Your task to perform on an android device: Search for pizza restaurants on Maps Image 0: 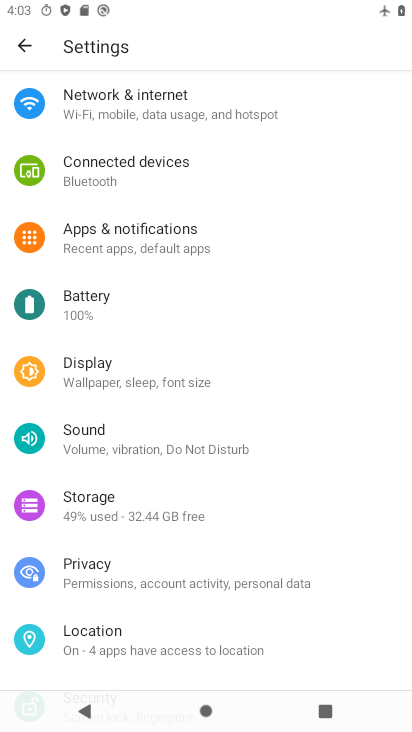
Step 0: press home button
Your task to perform on an android device: Search for pizza restaurants on Maps Image 1: 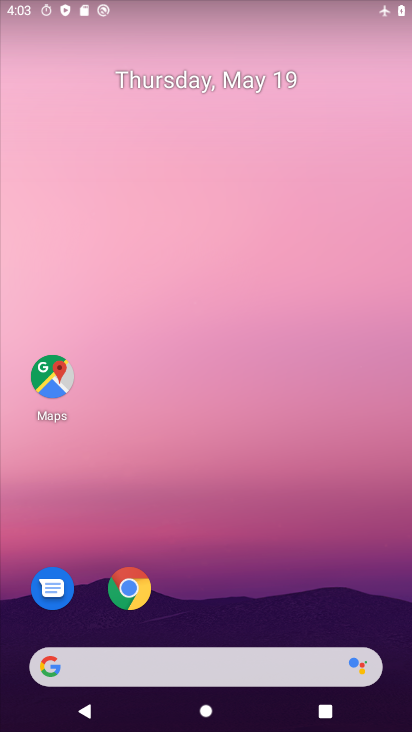
Step 1: click (55, 375)
Your task to perform on an android device: Search for pizza restaurants on Maps Image 2: 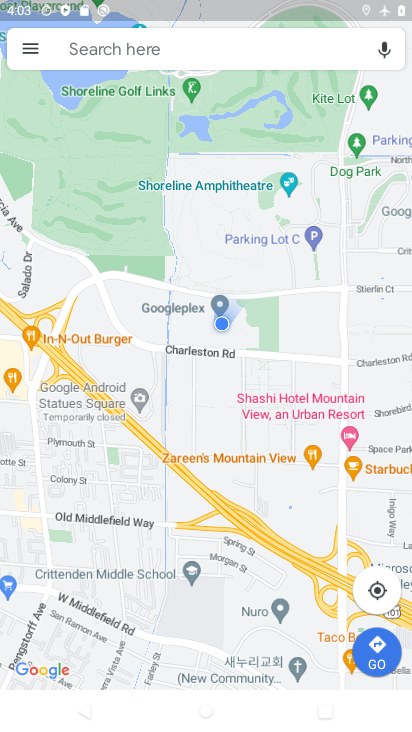
Step 2: click (195, 49)
Your task to perform on an android device: Search for pizza restaurants on Maps Image 3: 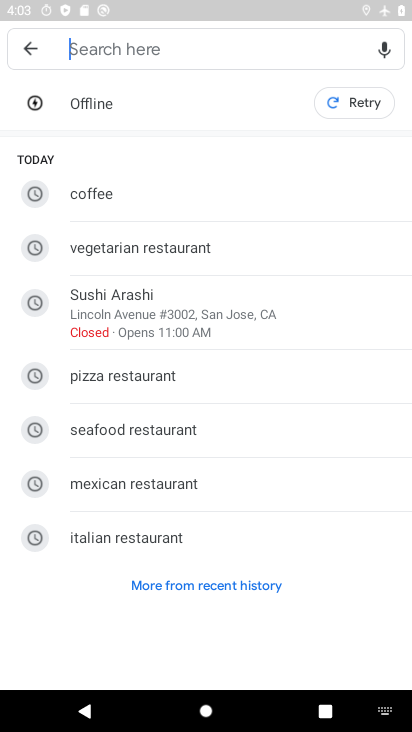
Step 3: type "Pizza restaurants"
Your task to perform on an android device: Search for pizza restaurants on Maps Image 4: 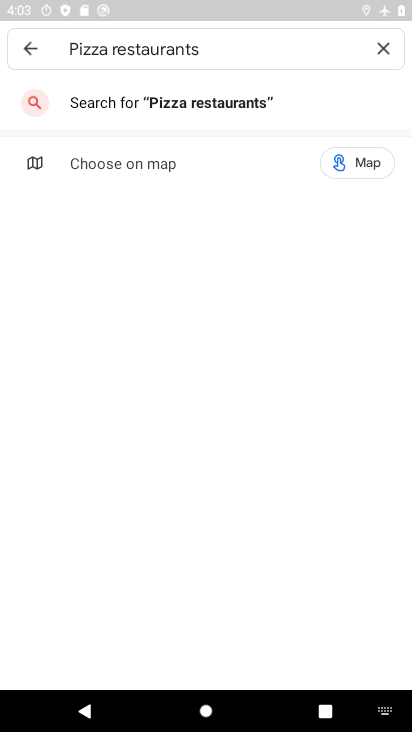
Step 4: click (229, 98)
Your task to perform on an android device: Search for pizza restaurants on Maps Image 5: 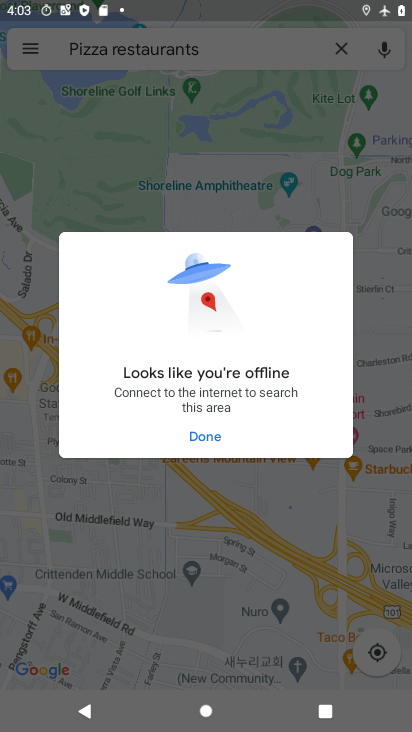
Step 5: click (221, 443)
Your task to perform on an android device: Search for pizza restaurants on Maps Image 6: 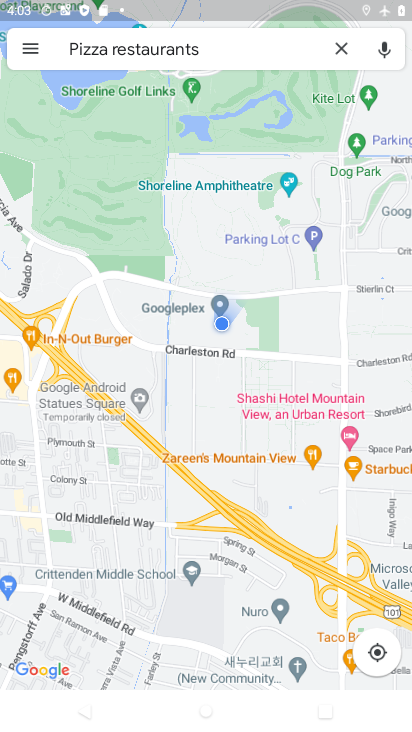
Step 6: task complete